Your task to perform on an android device: turn notification dots off Image 0: 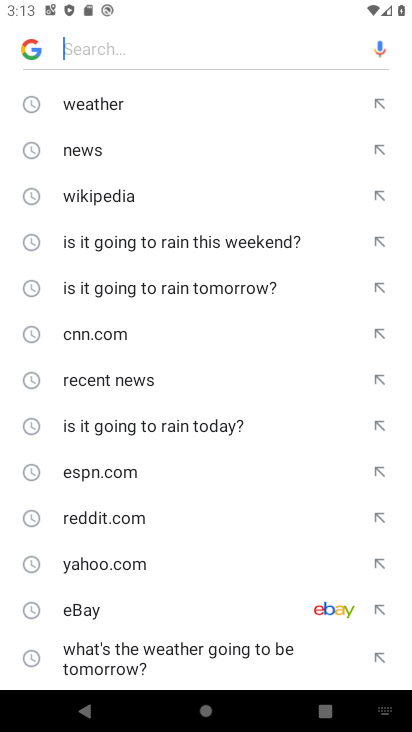
Step 0: press back button
Your task to perform on an android device: turn notification dots off Image 1: 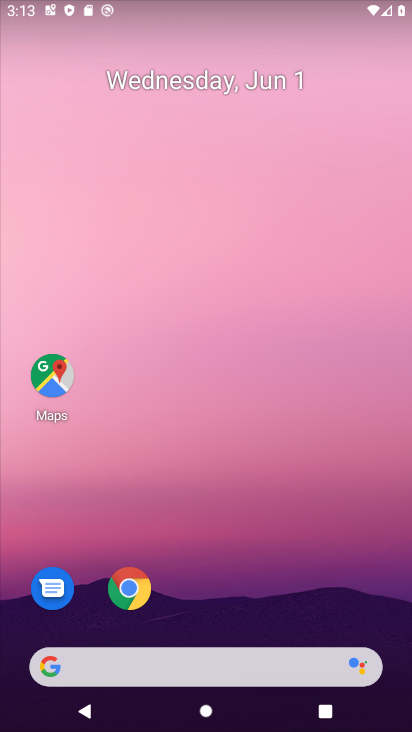
Step 1: drag from (322, 560) to (351, 131)
Your task to perform on an android device: turn notification dots off Image 2: 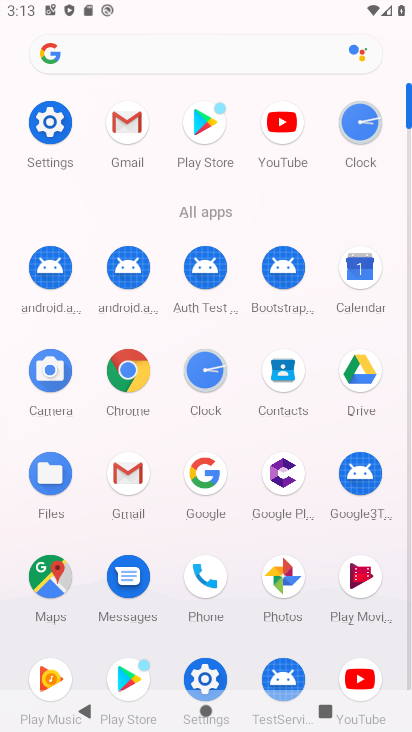
Step 2: click (48, 113)
Your task to perform on an android device: turn notification dots off Image 3: 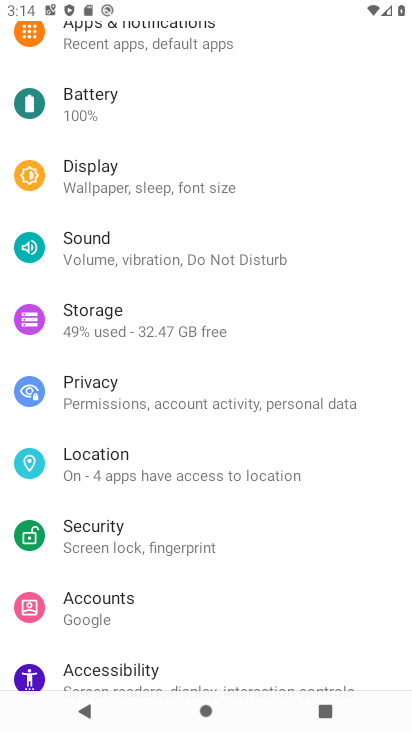
Step 3: click (116, 40)
Your task to perform on an android device: turn notification dots off Image 4: 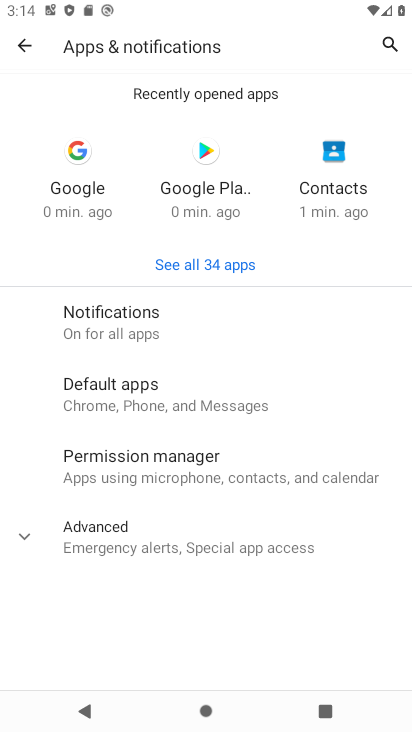
Step 4: click (133, 332)
Your task to perform on an android device: turn notification dots off Image 5: 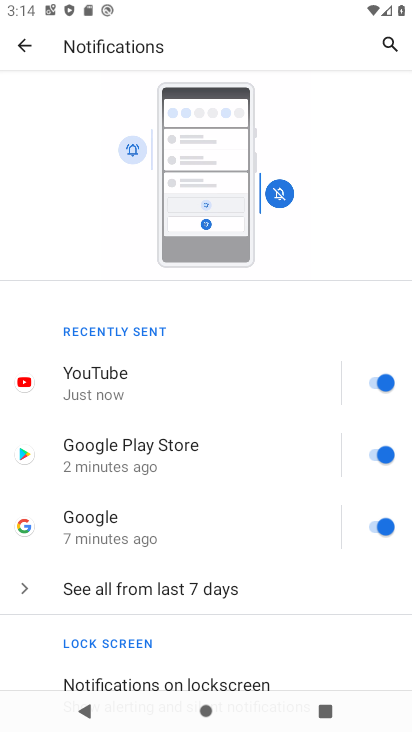
Step 5: drag from (234, 626) to (262, 129)
Your task to perform on an android device: turn notification dots off Image 6: 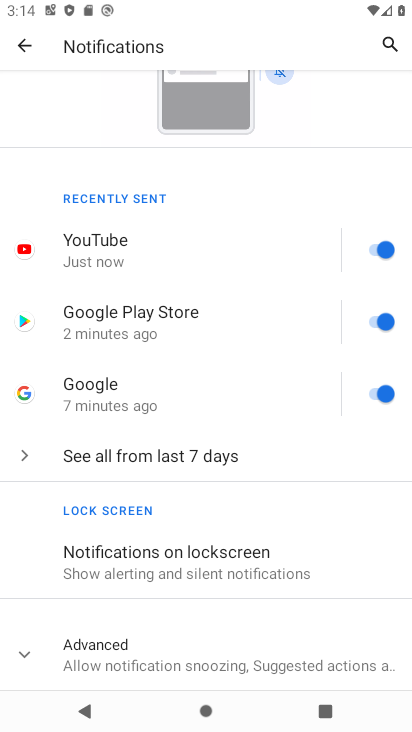
Step 6: click (243, 664)
Your task to perform on an android device: turn notification dots off Image 7: 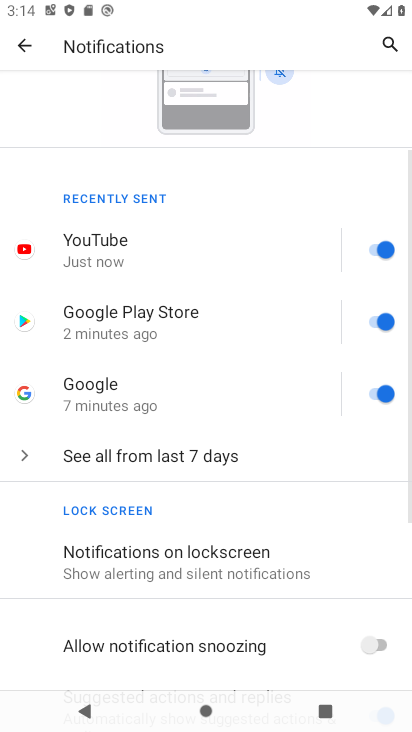
Step 7: drag from (261, 614) to (261, 277)
Your task to perform on an android device: turn notification dots off Image 8: 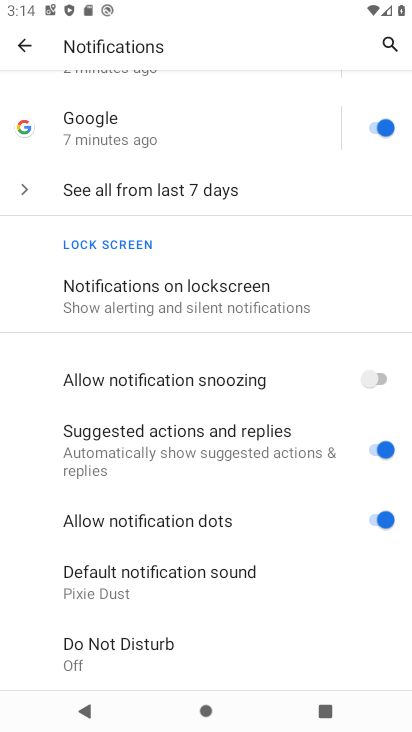
Step 8: click (387, 516)
Your task to perform on an android device: turn notification dots off Image 9: 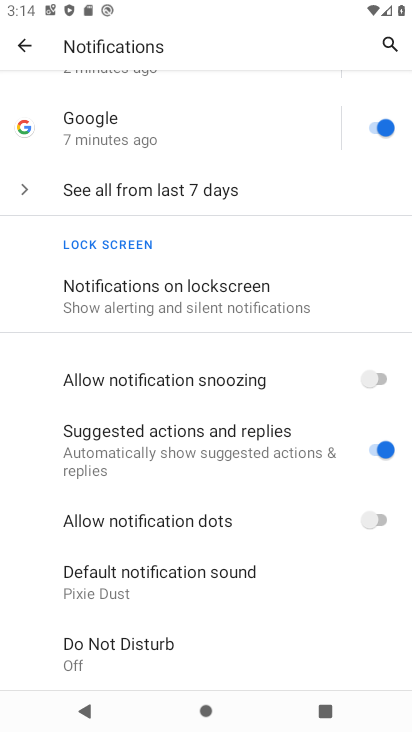
Step 9: task complete